Your task to perform on an android device: add a label to a message in the gmail app Image 0: 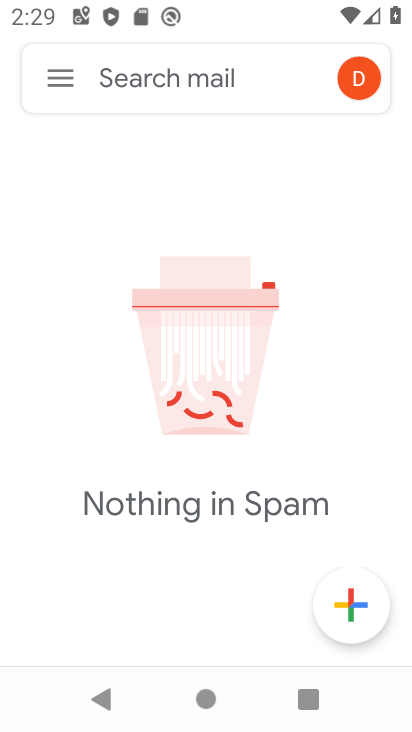
Step 0: click (74, 72)
Your task to perform on an android device: add a label to a message in the gmail app Image 1: 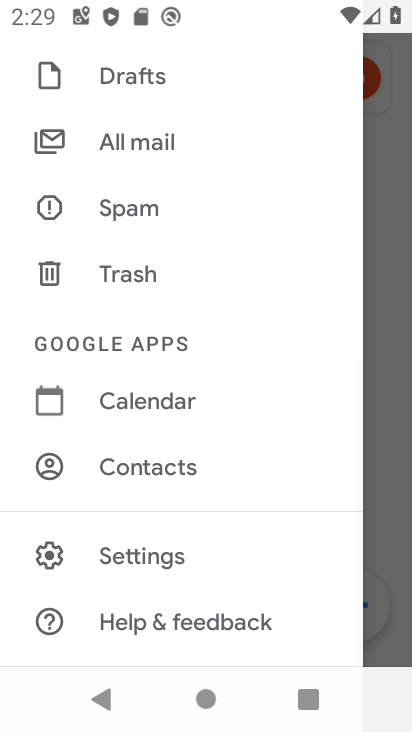
Step 1: click (171, 138)
Your task to perform on an android device: add a label to a message in the gmail app Image 2: 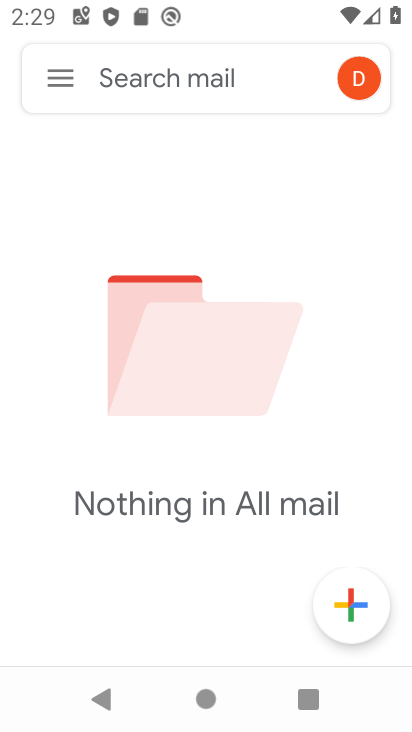
Step 2: click (72, 65)
Your task to perform on an android device: add a label to a message in the gmail app Image 3: 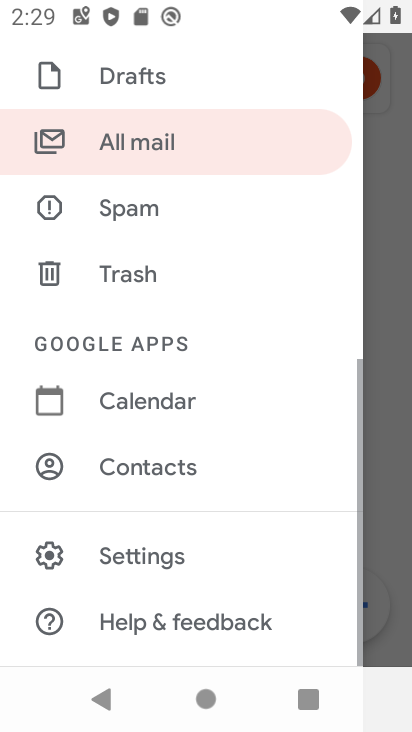
Step 3: drag from (136, 562) to (185, 122)
Your task to perform on an android device: add a label to a message in the gmail app Image 4: 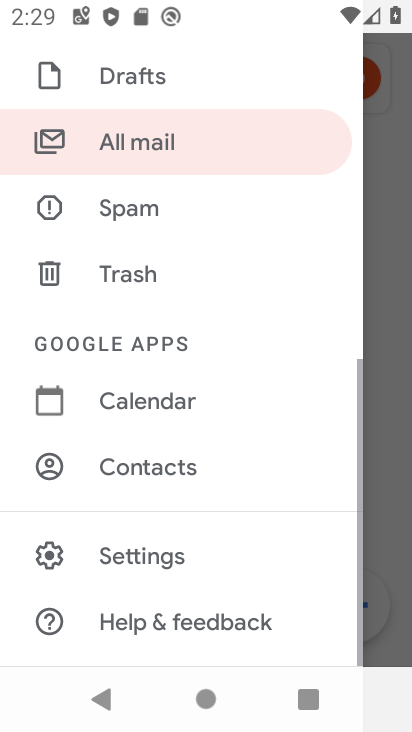
Step 4: drag from (223, 92) to (171, 494)
Your task to perform on an android device: add a label to a message in the gmail app Image 5: 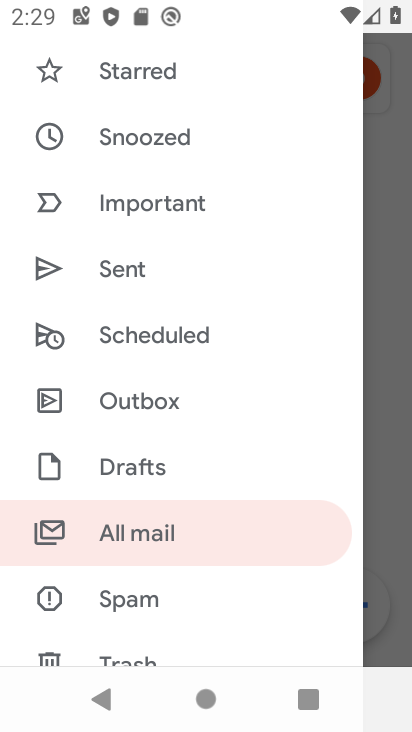
Step 5: drag from (163, 192) to (137, 504)
Your task to perform on an android device: add a label to a message in the gmail app Image 6: 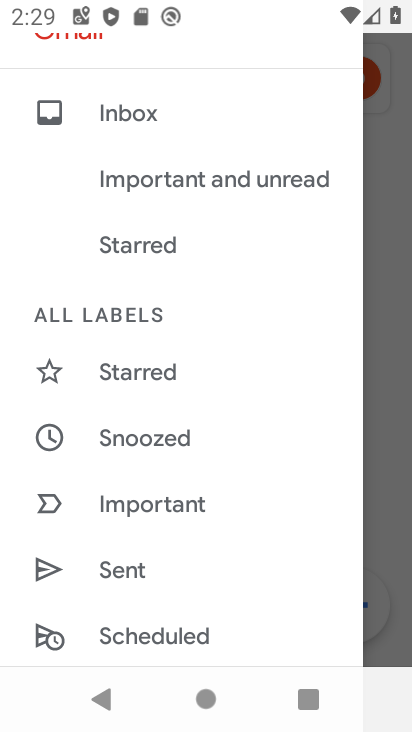
Step 6: click (129, 114)
Your task to perform on an android device: add a label to a message in the gmail app Image 7: 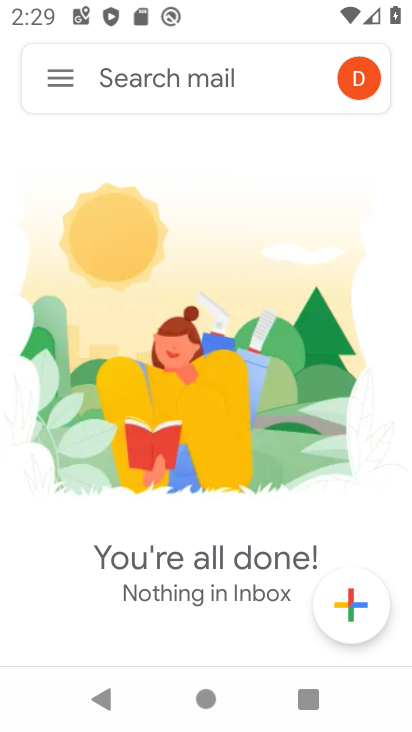
Step 7: task complete